Your task to perform on an android device: Open eBay Image 0: 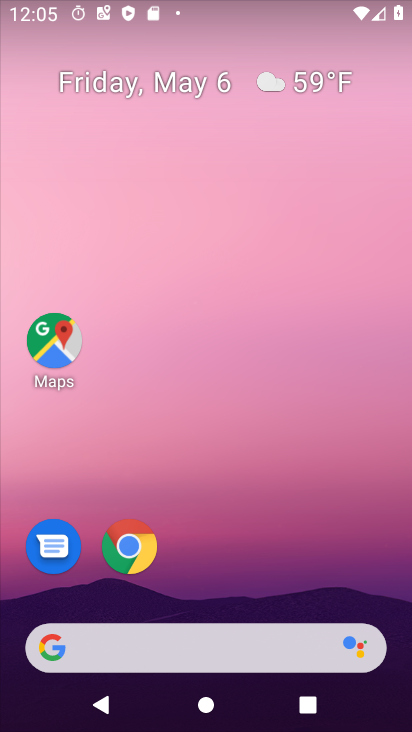
Step 0: click (125, 548)
Your task to perform on an android device: Open eBay Image 1: 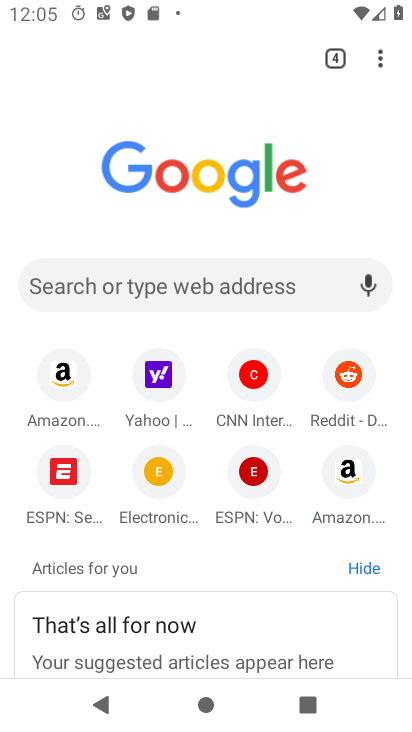
Step 1: click (390, 56)
Your task to perform on an android device: Open eBay Image 2: 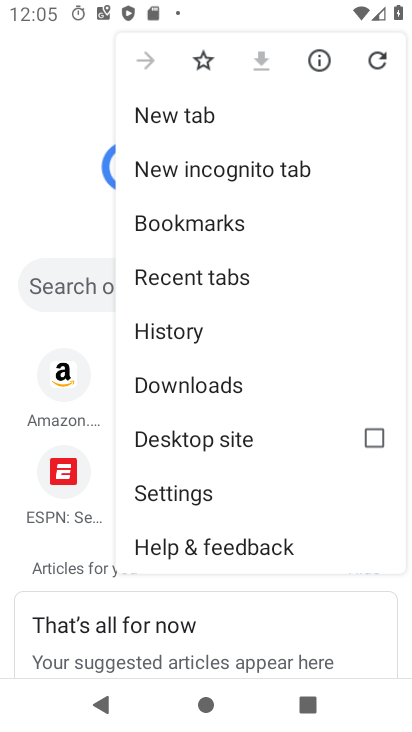
Step 2: click (78, 274)
Your task to perform on an android device: Open eBay Image 3: 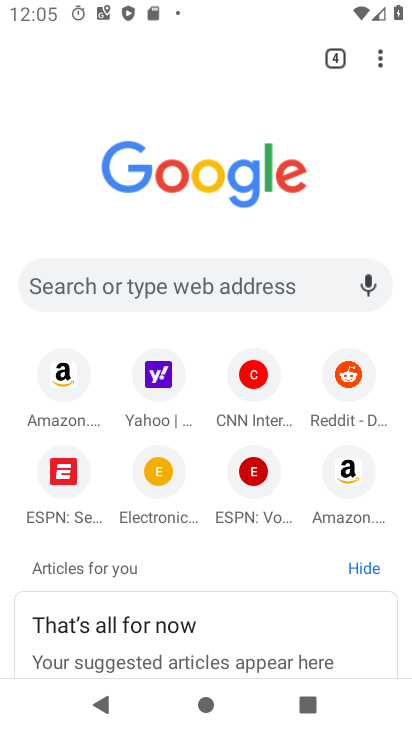
Step 3: click (82, 274)
Your task to perform on an android device: Open eBay Image 4: 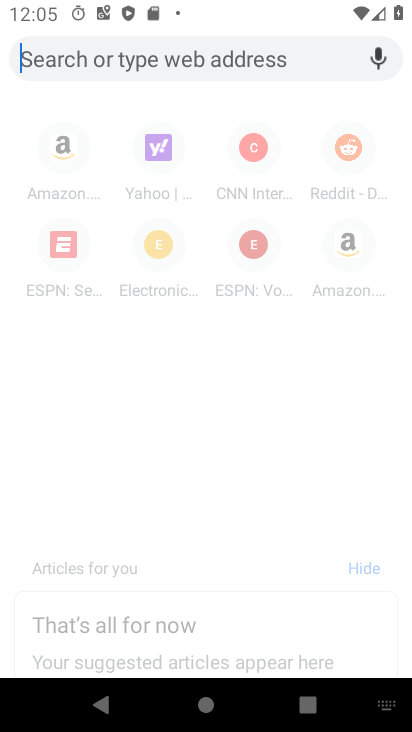
Step 4: type "ebay.com"
Your task to perform on an android device: Open eBay Image 5: 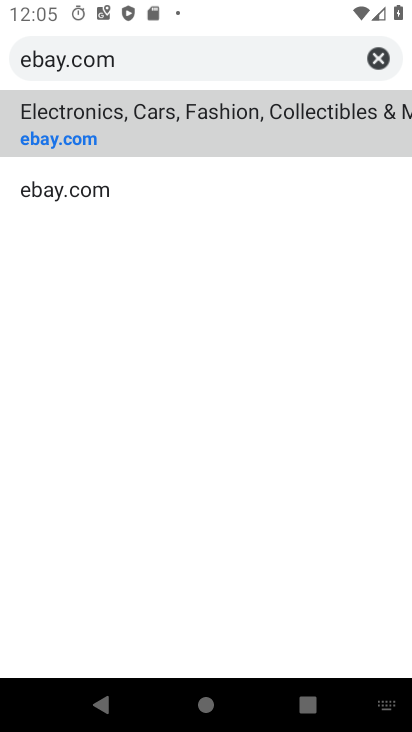
Step 5: click (197, 131)
Your task to perform on an android device: Open eBay Image 6: 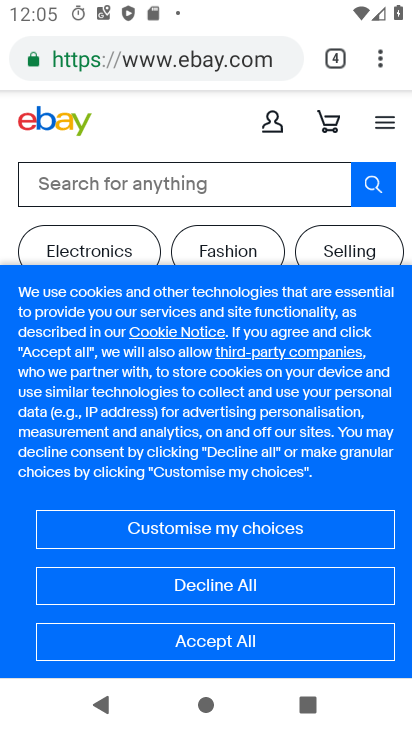
Step 6: task complete